Your task to perform on an android device: install app "Facebook Lite" Image 0: 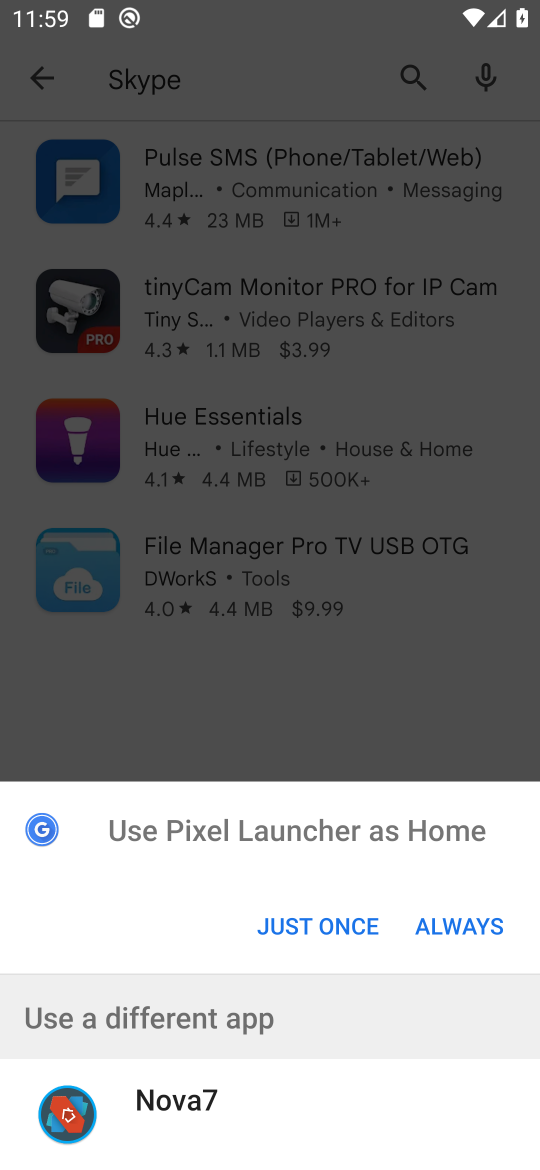
Step 0: press back button
Your task to perform on an android device: install app "Facebook Lite" Image 1: 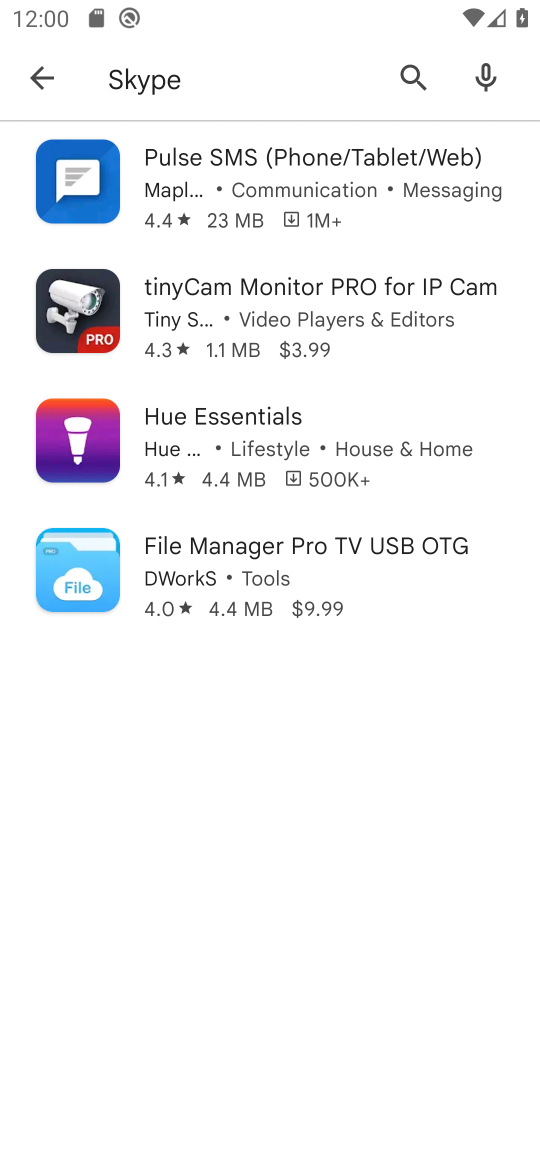
Step 1: click (39, 70)
Your task to perform on an android device: install app "Facebook Lite" Image 2: 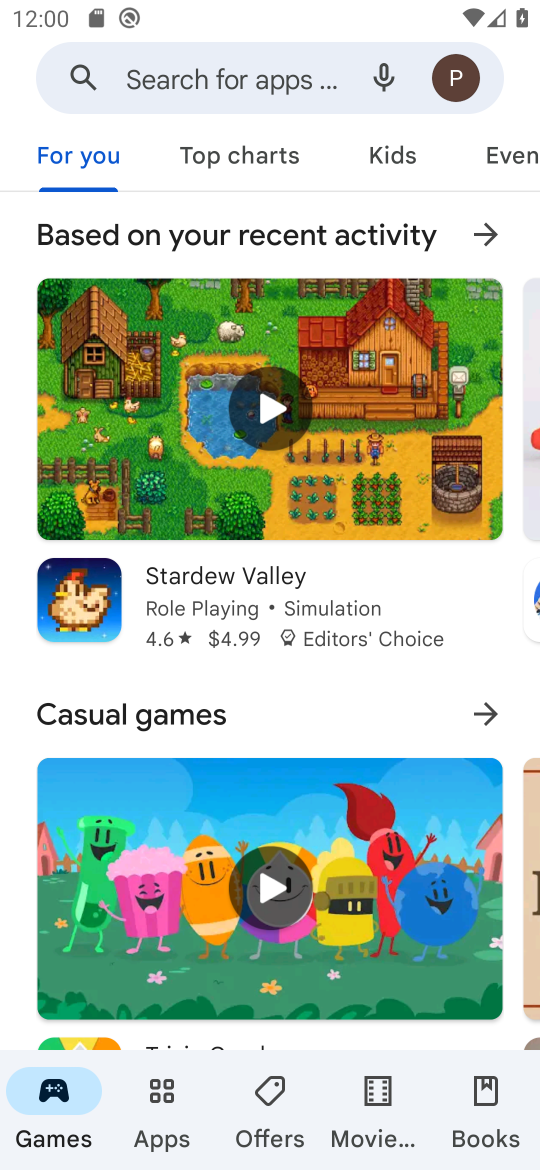
Step 2: click (217, 75)
Your task to perform on an android device: install app "Facebook Lite" Image 3: 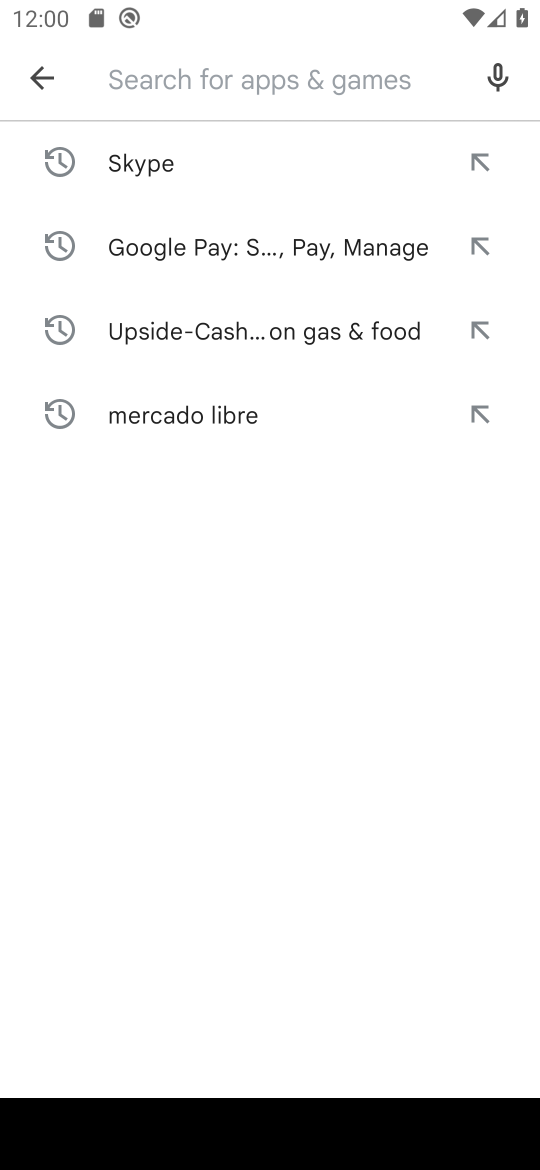
Step 3: type "Facebook Lite"
Your task to perform on an android device: install app "Facebook Lite" Image 4: 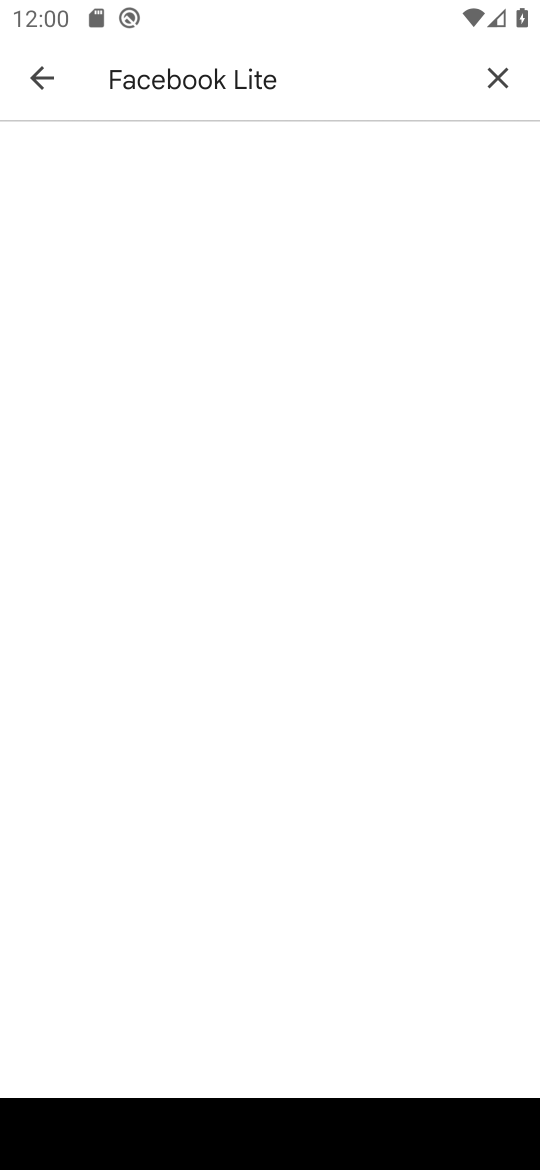
Step 4: press enter
Your task to perform on an android device: install app "Facebook Lite" Image 5: 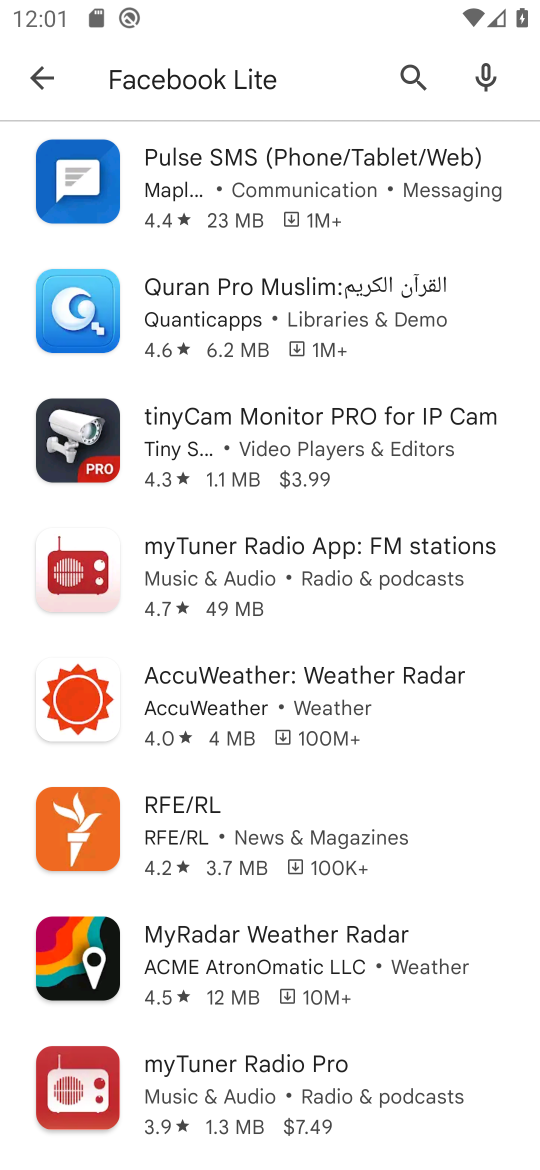
Step 5: task complete